Your task to perform on an android device: open app "DoorDash - Dasher" Image 0: 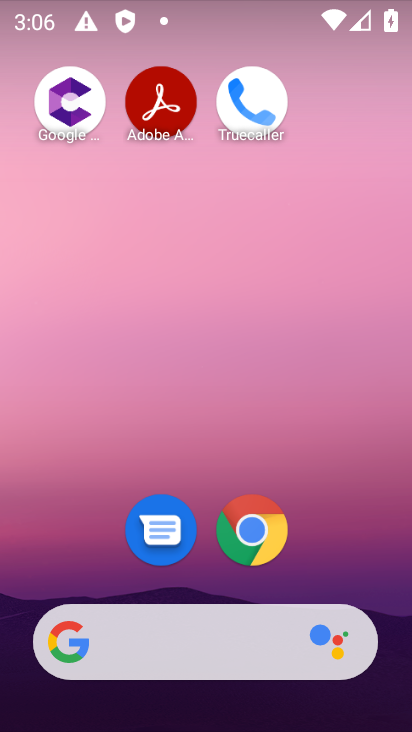
Step 0: drag from (338, 584) to (336, 9)
Your task to perform on an android device: open app "DoorDash - Dasher" Image 1: 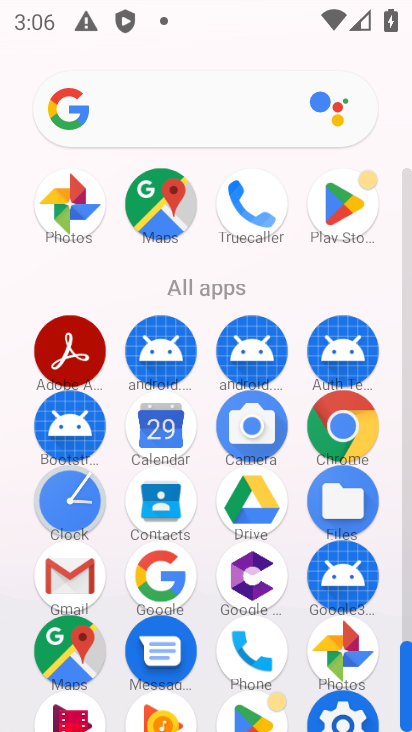
Step 1: click (337, 196)
Your task to perform on an android device: open app "DoorDash - Dasher" Image 2: 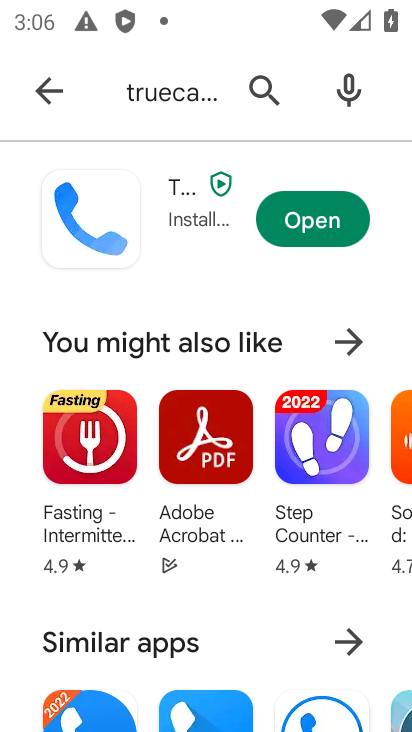
Step 2: click (269, 92)
Your task to perform on an android device: open app "DoorDash - Dasher" Image 3: 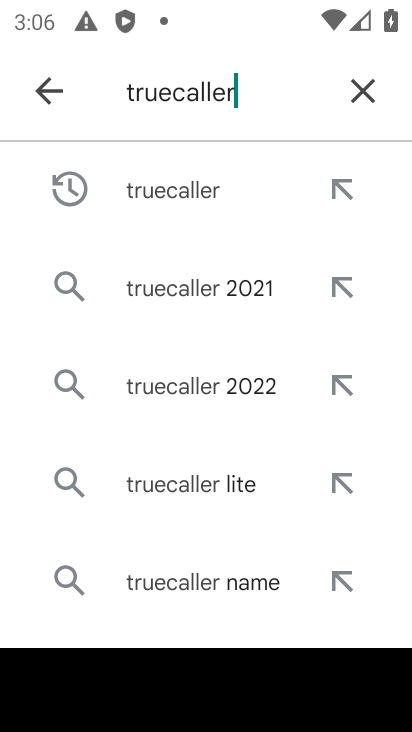
Step 3: click (361, 97)
Your task to perform on an android device: open app "DoorDash - Dasher" Image 4: 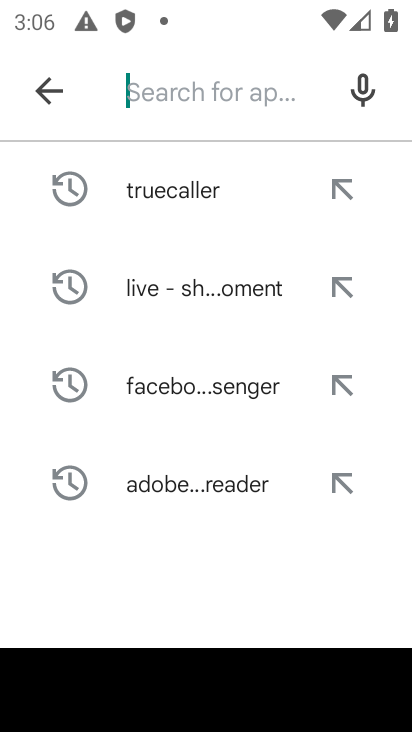
Step 4: type "DoorDash - Dasher"
Your task to perform on an android device: open app "DoorDash - Dasher" Image 5: 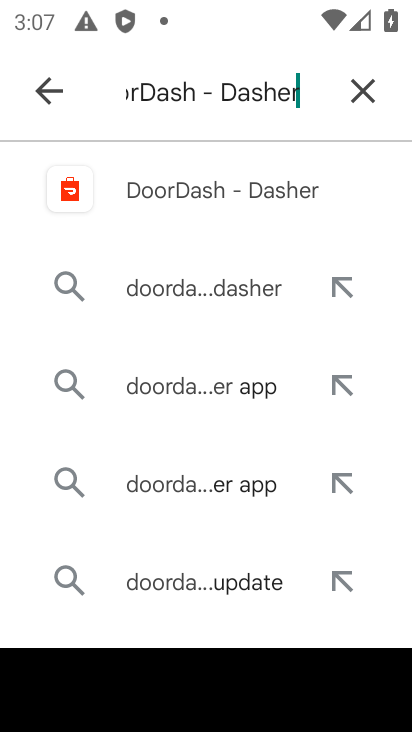
Step 5: click (180, 197)
Your task to perform on an android device: open app "DoorDash - Dasher" Image 6: 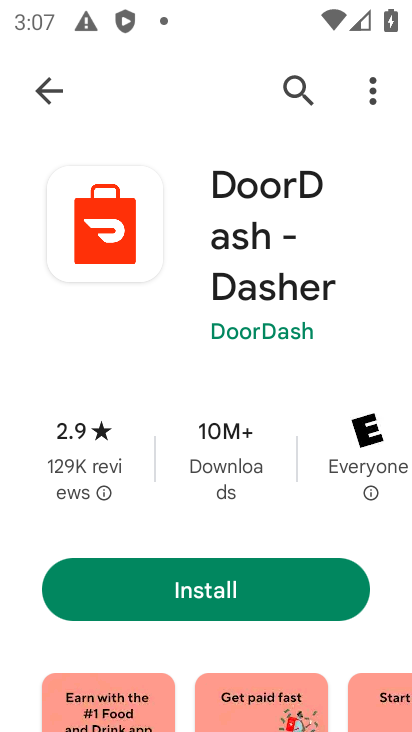
Step 6: task complete